Your task to perform on an android device: set the stopwatch Image 0: 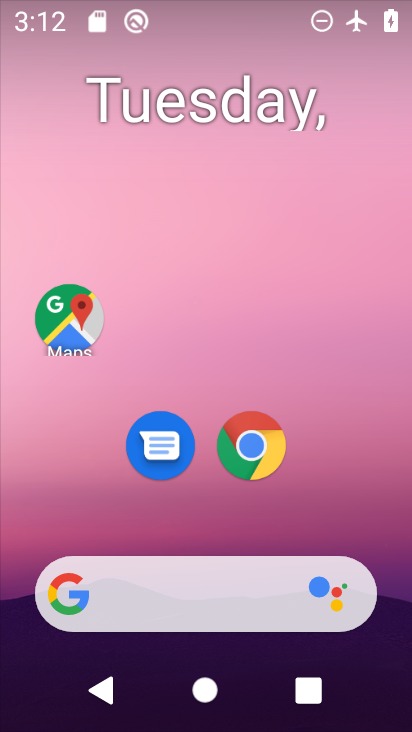
Step 0: drag from (340, 547) to (347, 24)
Your task to perform on an android device: set the stopwatch Image 1: 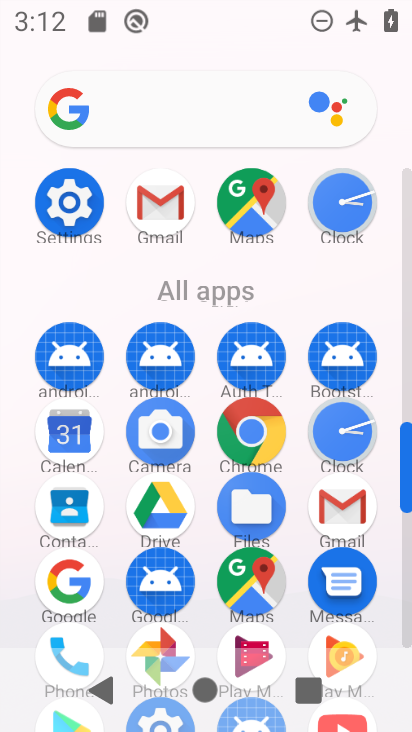
Step 1: click (345, 201)
Your task to perform on an android device: set the stopwatch Image 2: 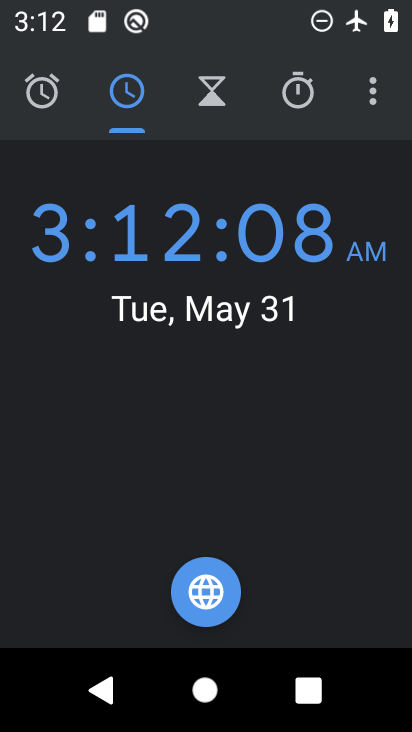
Step 2: click (291, 103)
Your task to perform on an android device: set the stopwatch Image 3: 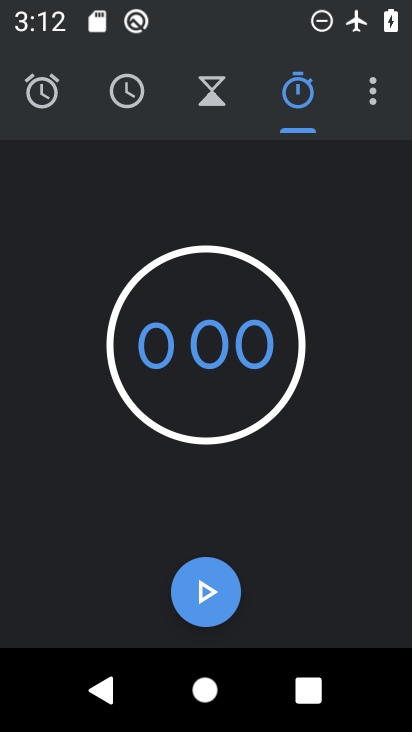
Step 3: click (206, 596)
Your task to perform on an android device: set the stopwatch Image 4: 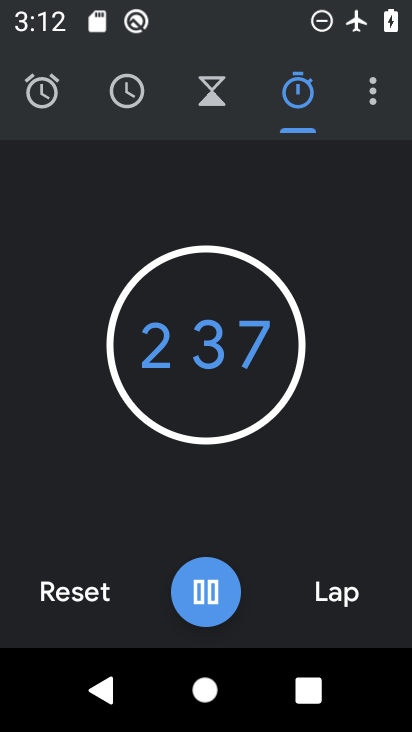
Step 4: click (206, 596)
Your task to perform on an android device: set the stopwatch Image 5: 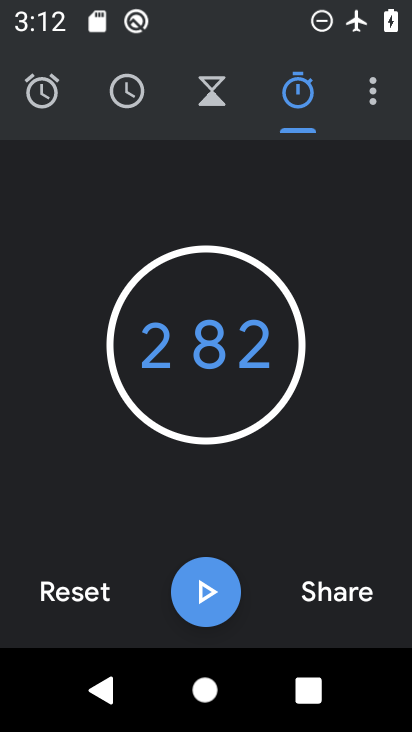
Step 5: task complete